Your task to perform on an android device: Open the web browser Image 0: 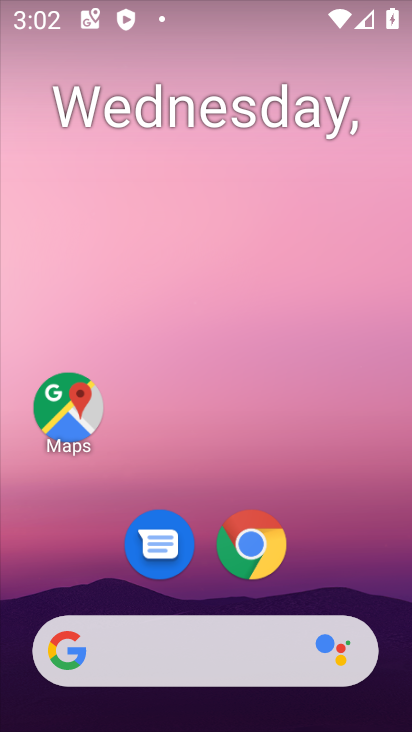
Step 0: drag from (332, 566) to (306, 79)
Your task to perform on an android device: Open the web browser Image 1: 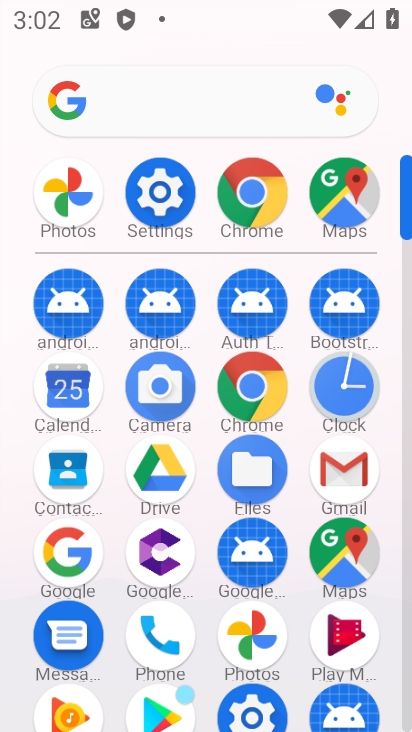
Step 1: click (240, 403)
Your task to perform on an android device: Open the web browser Image 2: 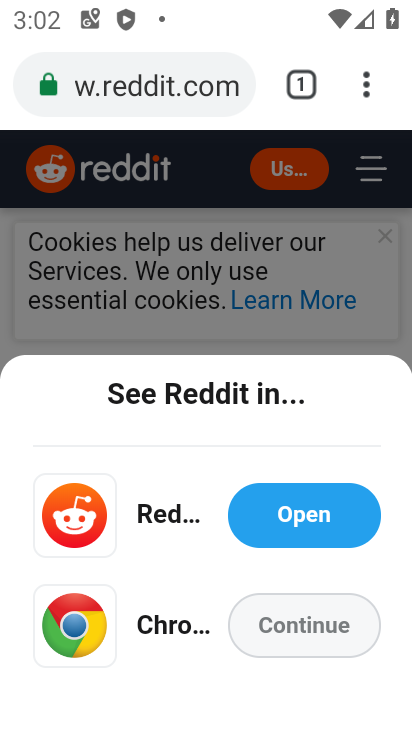
Step 2: task complete